Your task to perform on an android device: Open the map Image 0: 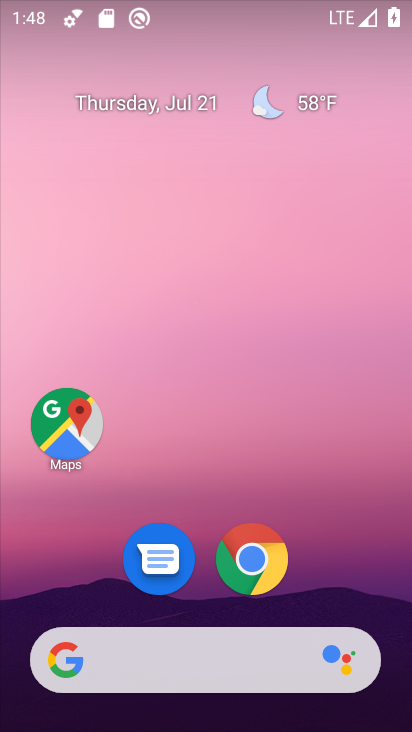
Step 0: drag from (358, 571) to (354, 84)
Your task to perform on an android device: Open the map Image 1: 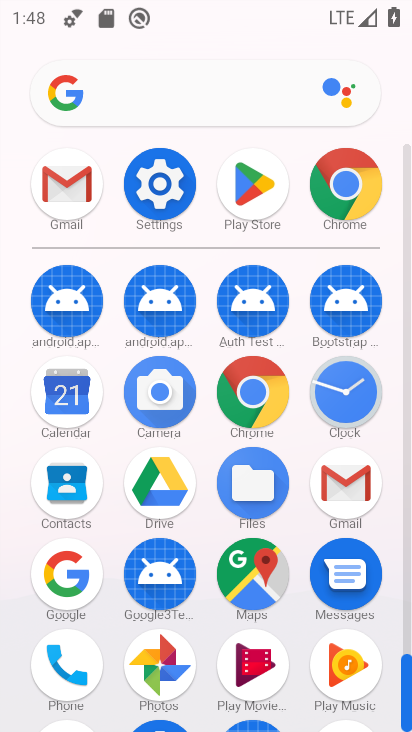
Step 1: click (254, 585)
Your task to perform on an android device: Open the map Image 2: 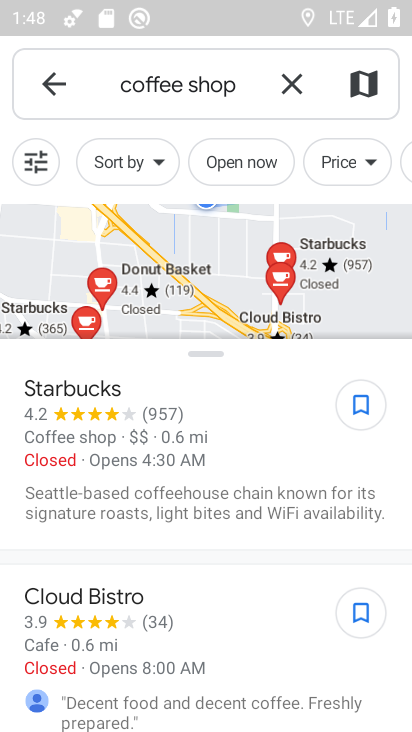
Step 2: task complete